Your task to perform on an android device: install app "eBay: The shopping marketplace" Image 0: 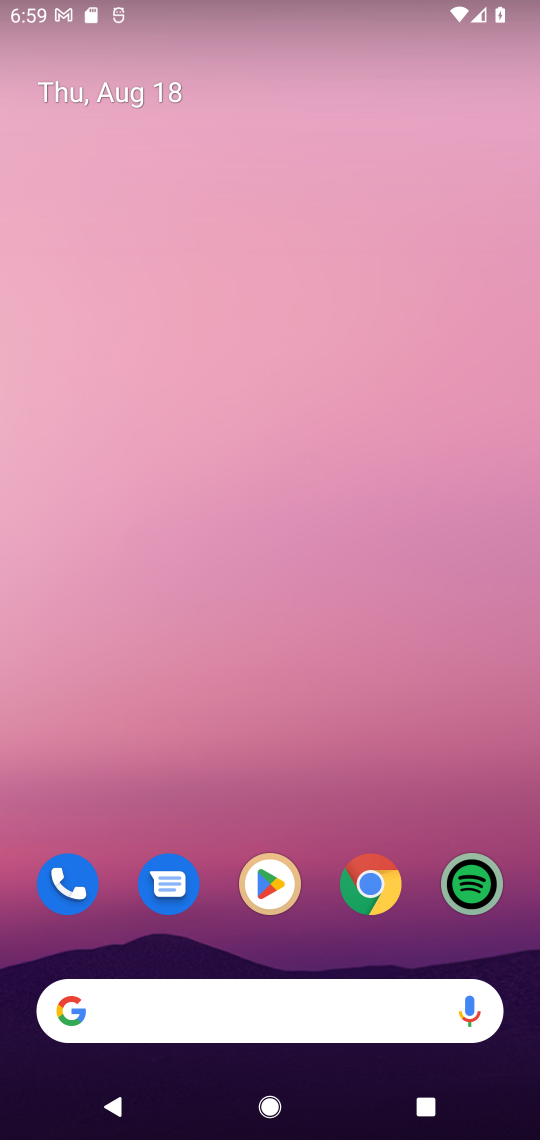
Step 0: drag from (235, 1004) to (366, 156)
Your task to perform on an android device: install app "eBay: The shopping marketplace" Image 1: 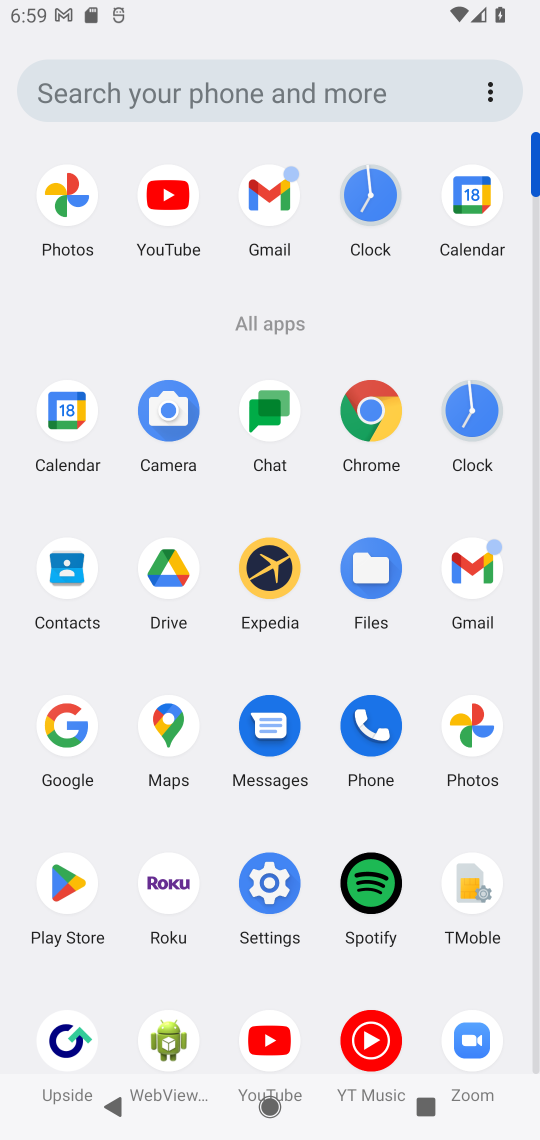
Step 1: click (75, 883)
Your task to perform on an android device: install app "eBay: The shopping marketplace" Image 2: 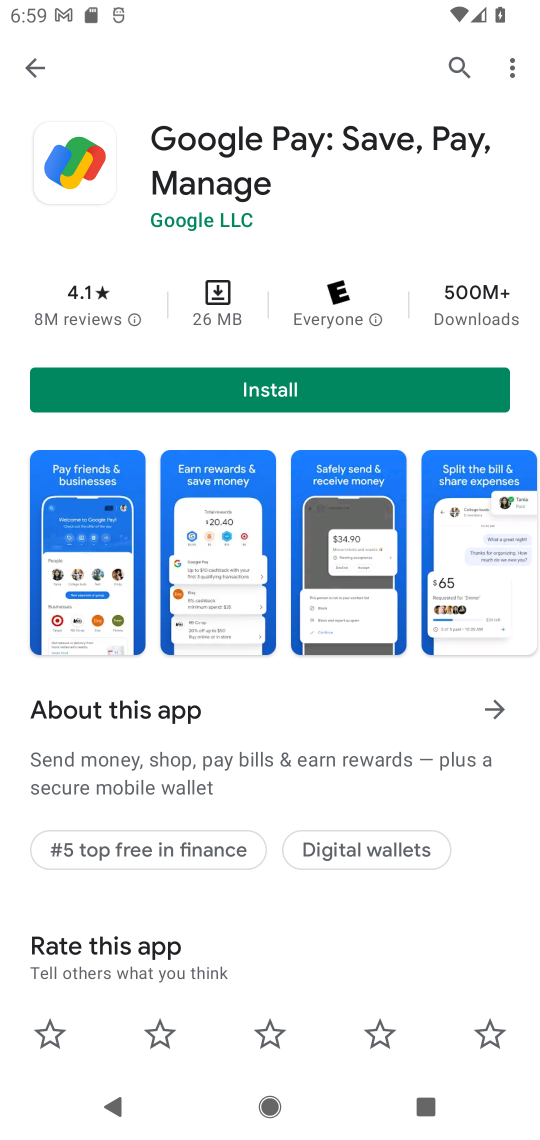
Step 2: press back button
Your task to perform on an android device: install app "eBay: The shopping marketplace" Image 3: 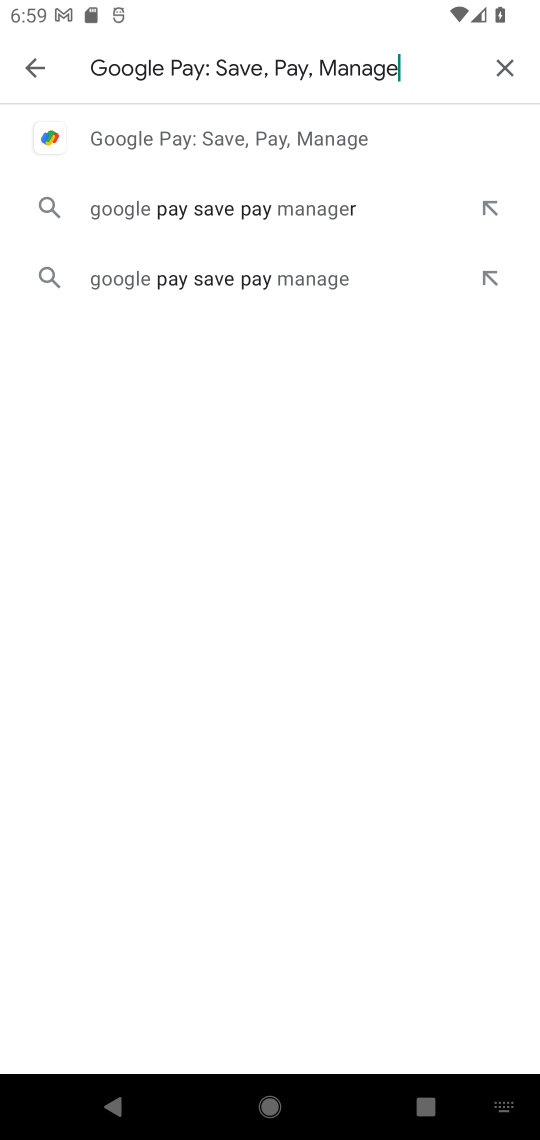
Step 3: press back button
Your task to perform on an android device: install app "eBay: The shopping marketplace" Image 4: 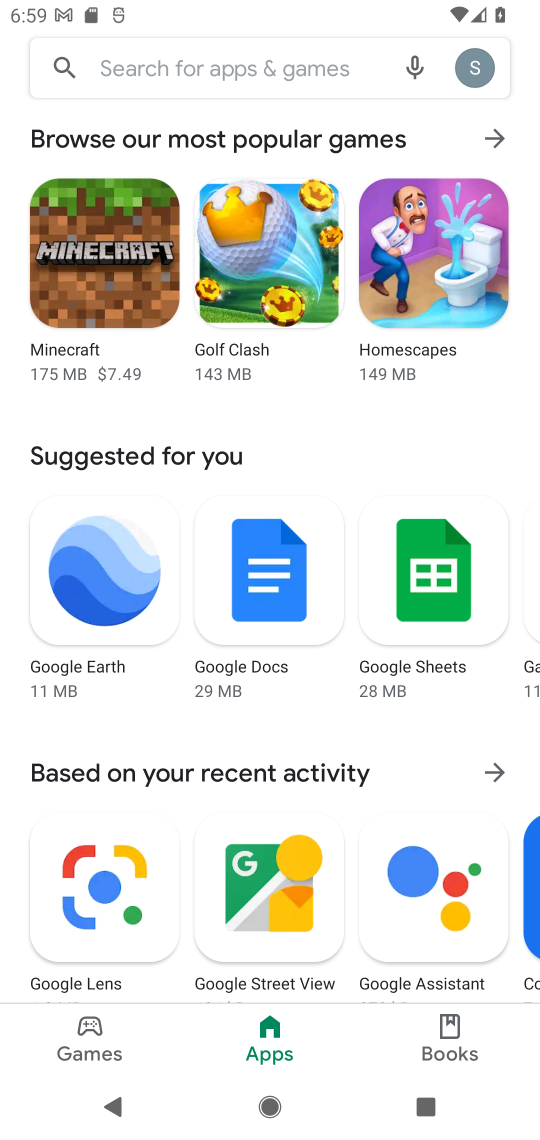
Step 4: click (315, 73)
Your task to perform on an android device: install app "eBay: The shopping marketplace" Image 5: 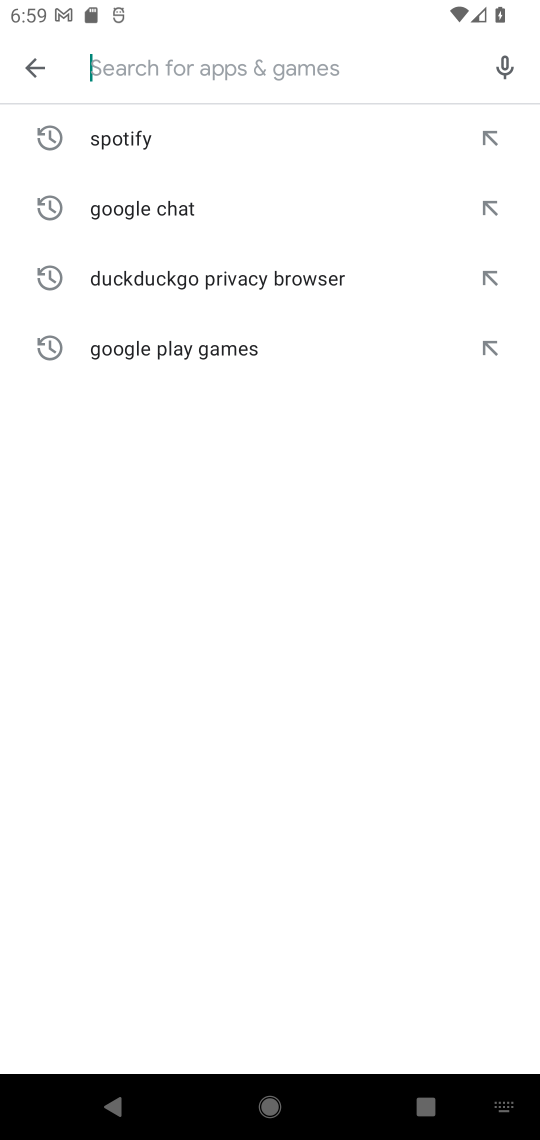
Step 5: type "eBay: The shopping marketplace"
Your task to perform on an android device: install app "eBay: The shopping marketplace" Image 6: 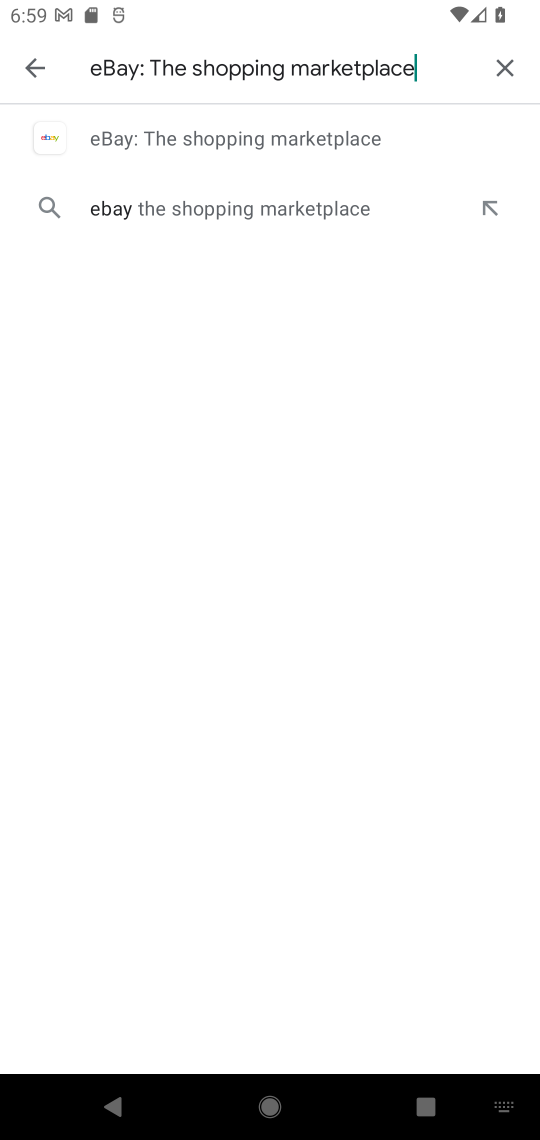
Step 6: click (335, 137)
Your task to perform on an android device: install app "eBay: The shopping marketplace" Image 7: 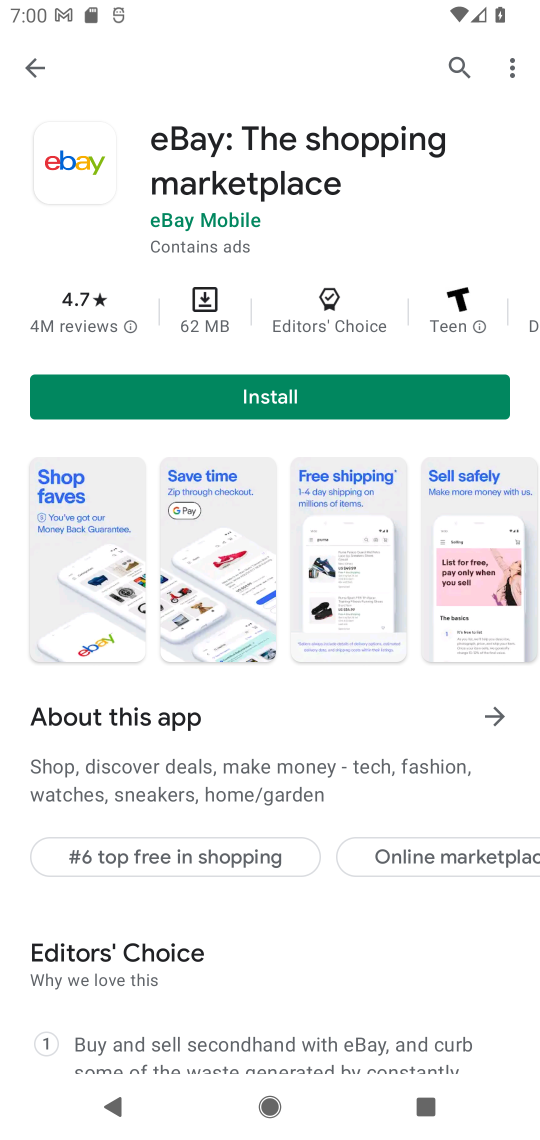
Step 7: click (263, 396)
Your task to perform on an android device: install app "eBay: The shopping marketplace" Image 8: 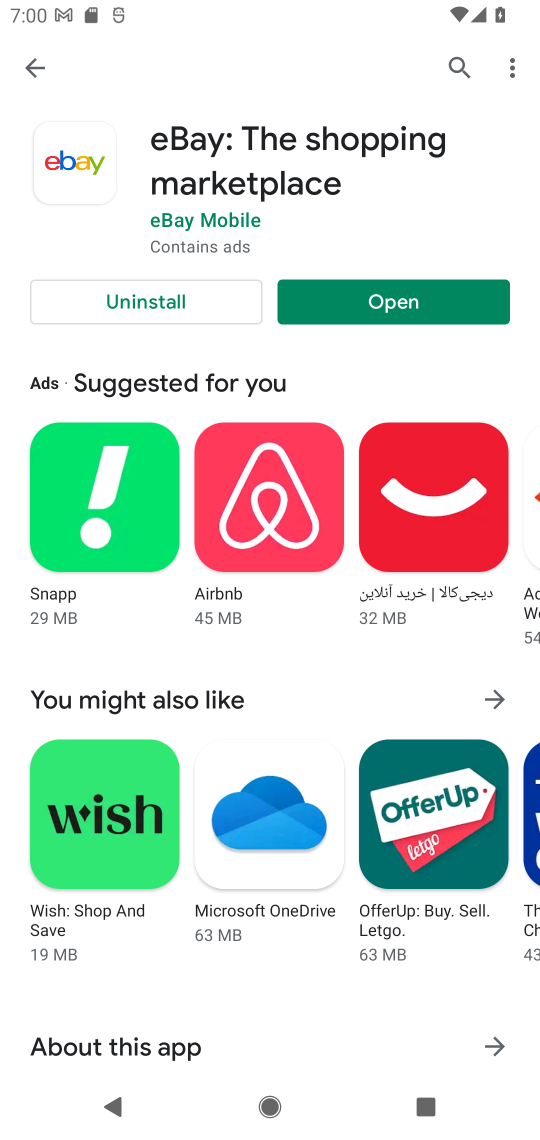
Step 8: task complete